Your task to perform on an android device: Is it going to rain this weekend? Image 0: 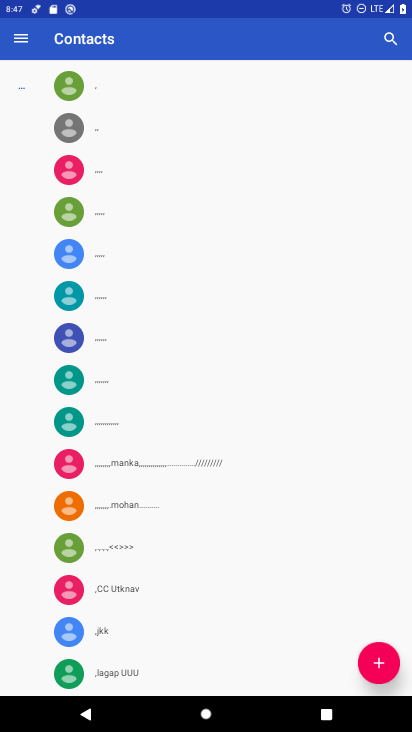
Step 0: press home button
Your task to perform on an android device: Is it going to rain this weekend? Image 1: 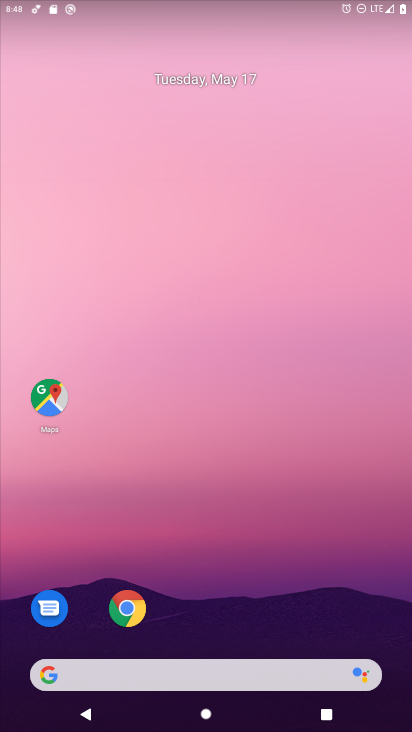
Step 1: drag from (211, 587) to (203, 60)
Your task to perform on an android device: Is it going to rain this weekend? Image 2: 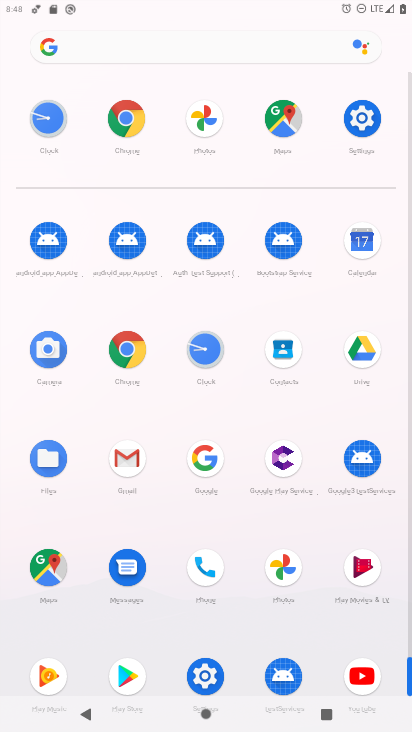
Step 2: click (201, 45)
Your task to perform on an android device: Is it going to rain this weekend? Image 3: 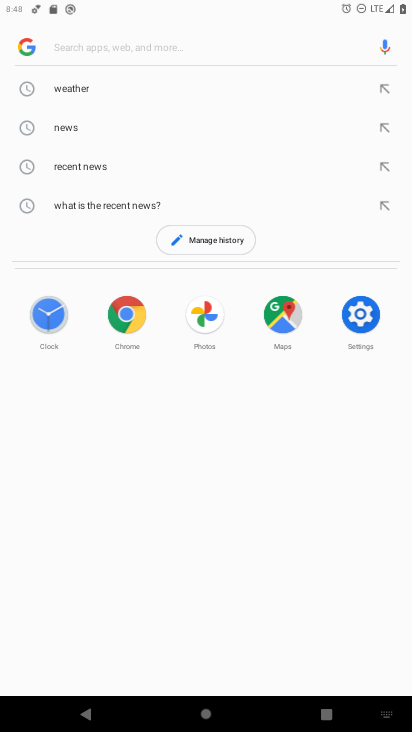
Step 3: click (68, 93)
Your task to perform on an android device: Is it going to rain this weekend? Image 4: 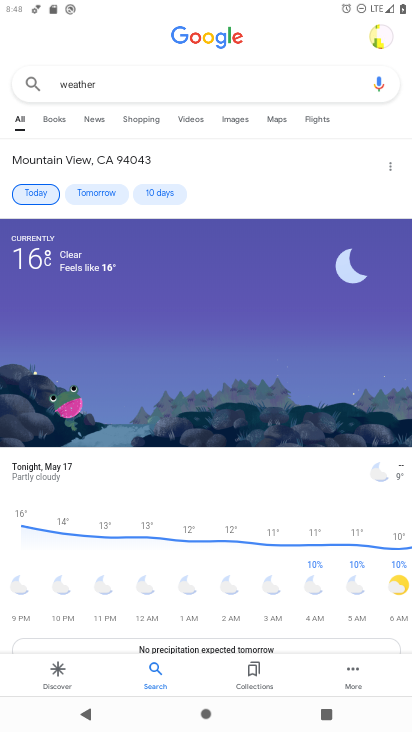
Step 4: task complete